Your task to perform on an android device: change your default location settings in chrome Image 0: 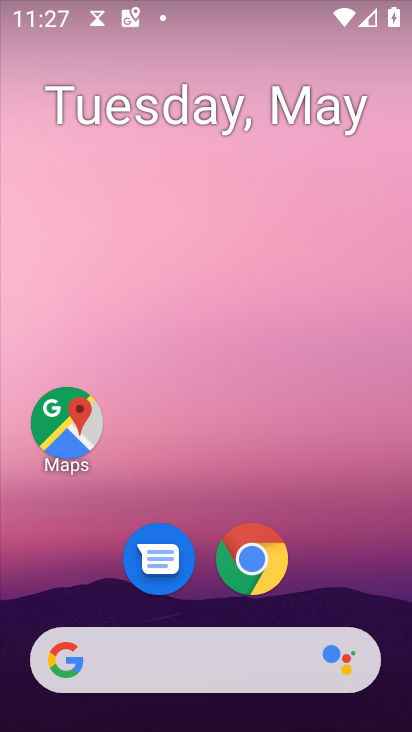
Step 0: drag from (355, 588) to (331, 76)
Your task to perform on an android device: change your default location settings in chrome Image 1: 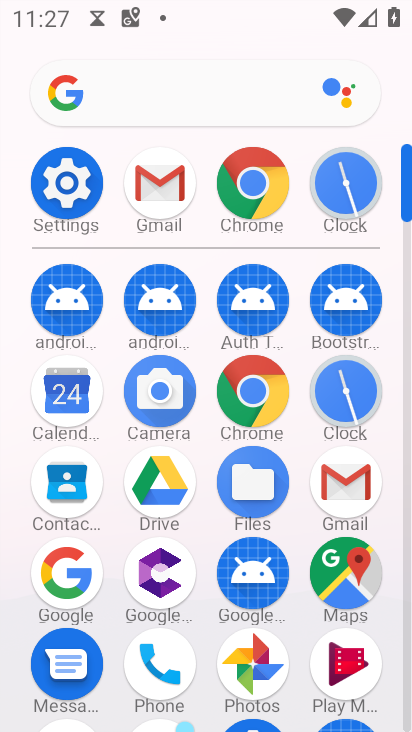
Step 1: click (248, 159)
Your task to perform on an android device: change your default location settings in chrome Image 2: 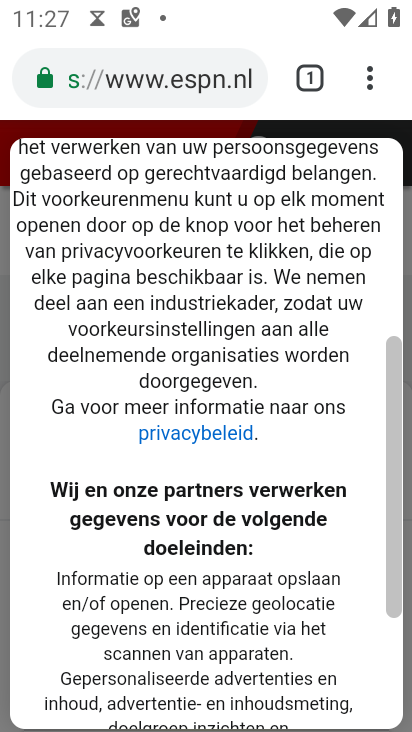
Step 2: drag from (377, 89) to (149, 616)
Your task to perform on an android device: change your default location settings in chrome Image 3: 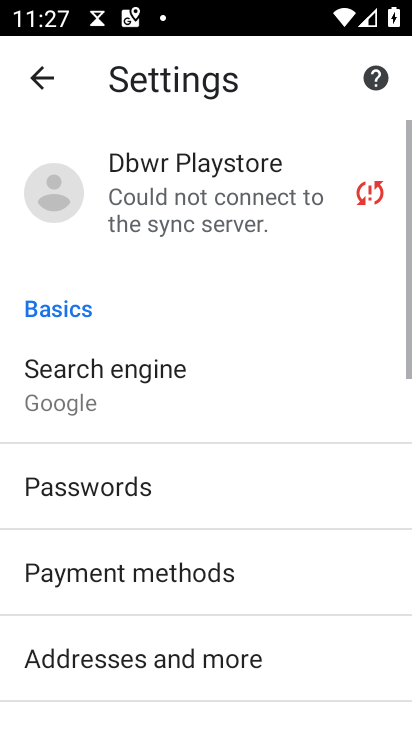
Step 3: drag from (155, 648) to (204, 246)
Your task to perform on an android device: change your default location settings in chrome Image 4: 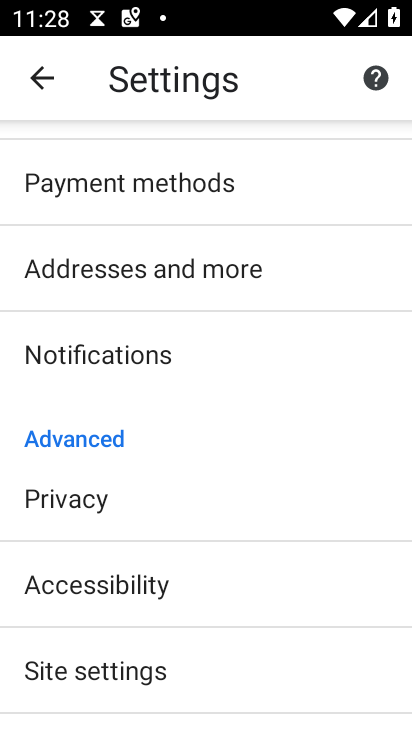
Step 4: drag from (264, 288) to (285, 730)
Your task to perform on an android device: change your default location settings in chrome Image 5: 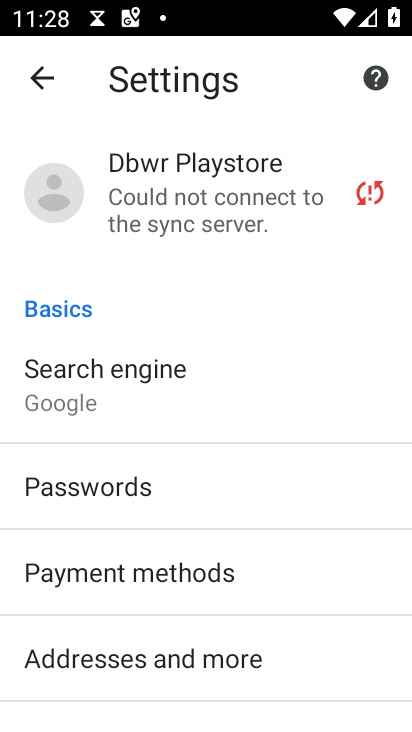
Step 5: drag from (310, 629) to (351, 282)
Your task to perform on an android device: change your default location settings in chrome Image 6: 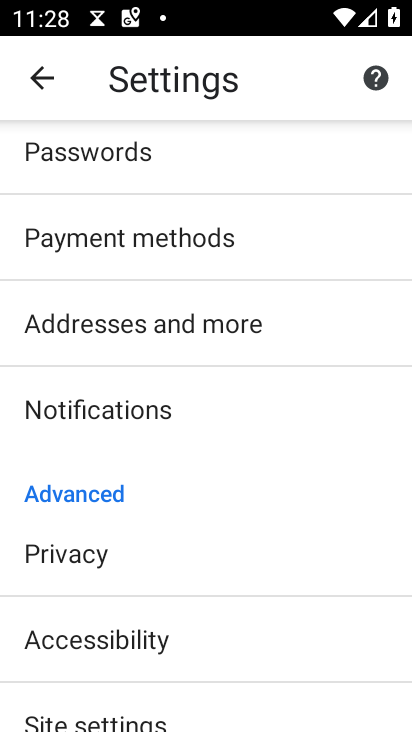
Step 6: drag from (290, 626) to (288, 204)
Your task to perform on an android device: change your default location settings in chrome Image 7: 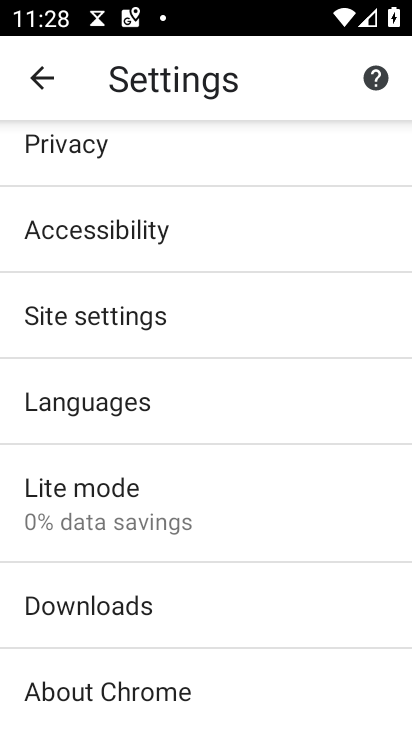
Step 7: click (116, 329)
Your task to perform on an android device: change your default location settings in chrome Image 8: 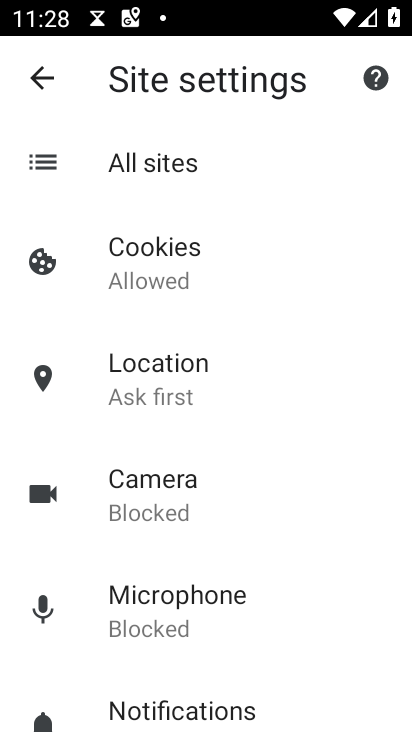
Step 8: click (140, 380)
Your task to perform on an android device: change your default location settings in chrome Image 9: 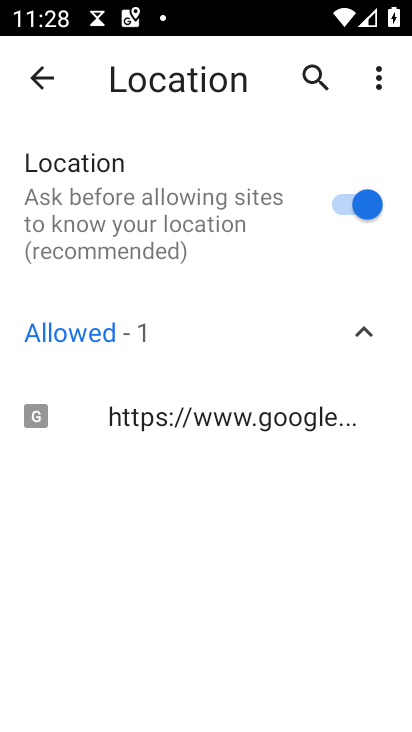
Step 9: click (354, 189)
Your task to perform on an android device: change your default location settings in chrome Image 10: 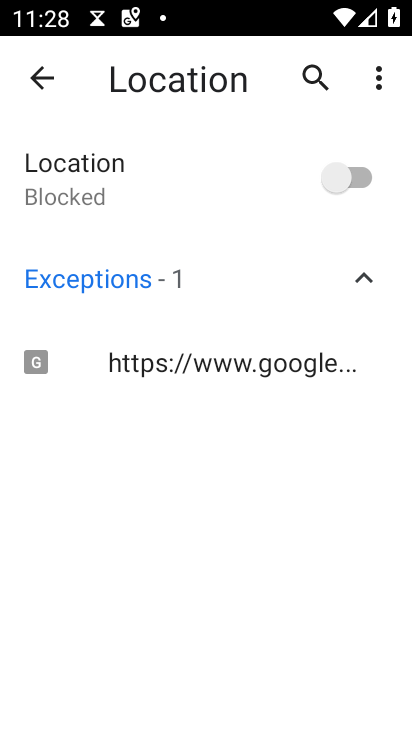
Step 10: task complete